Your task to perform on an android device: turn on the 12-hour format for clock Image 0: 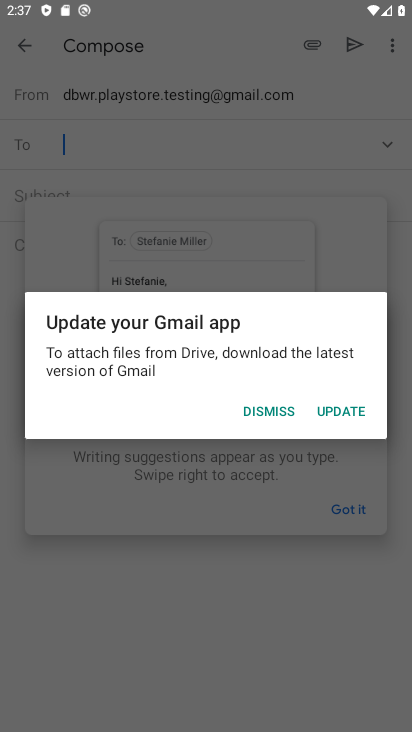
Step 0: press home button
Your task to perform on an android device: turn on the 12-hour format for clock Image 1: 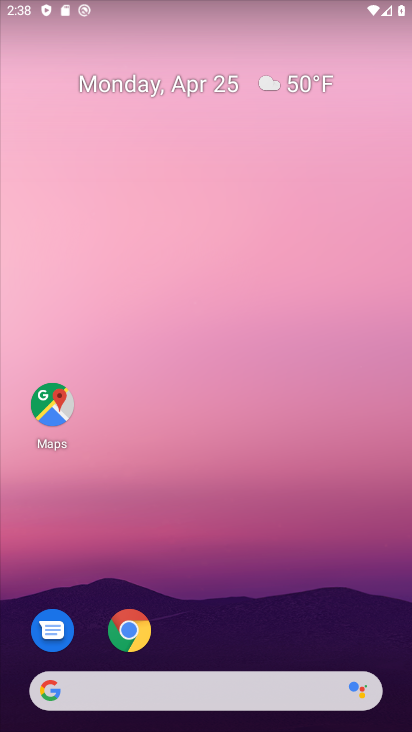
Step 1: drag from (160, 463) to (76, 143)
Your task to perform on an android device: turn on the 12-hour format for clock Image 2: 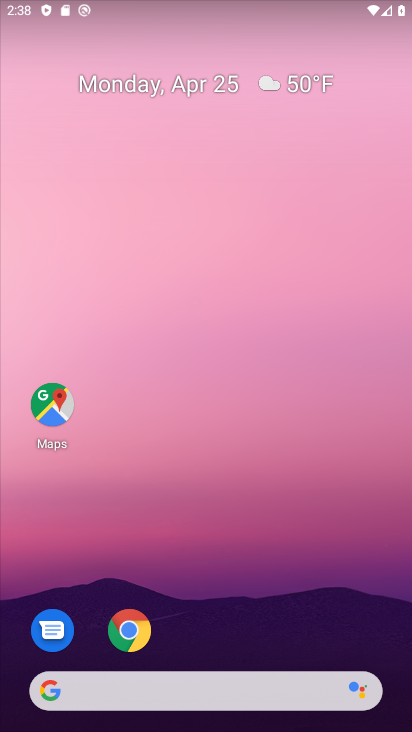
Step 2: drag from (220, 572) to (50, 48)
Your task to perform on an android device: turn on the 12-hour format for clock Image 3: 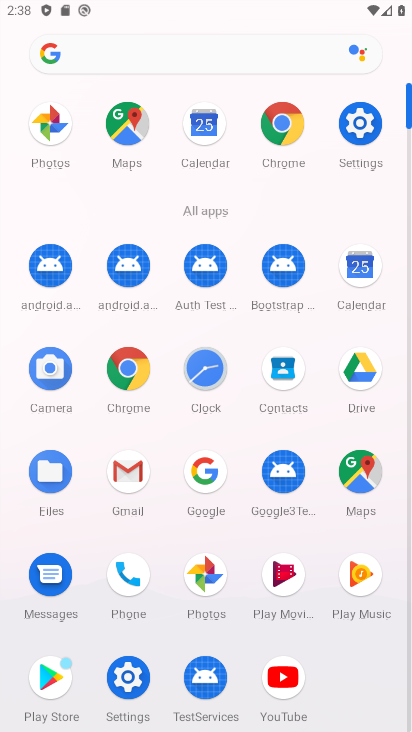
Step 3: click (218, 363)
Your task to perform on an android device: turn on the 12-hour format for clock Image 4: 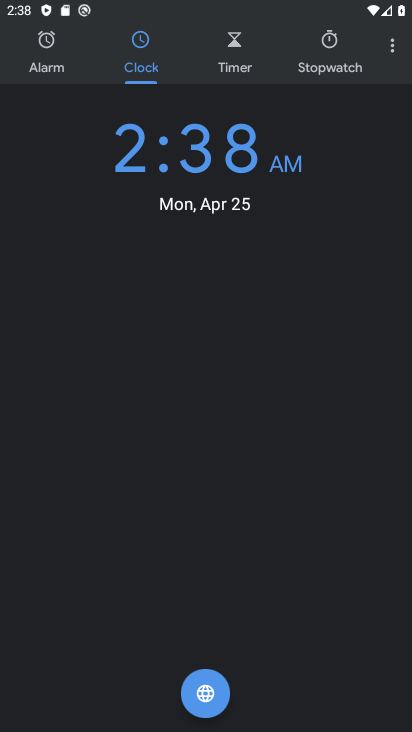
Step 4: click (393, 48)
Your task to perform on an android device: turn on the 12-hour format for clock Image 5: 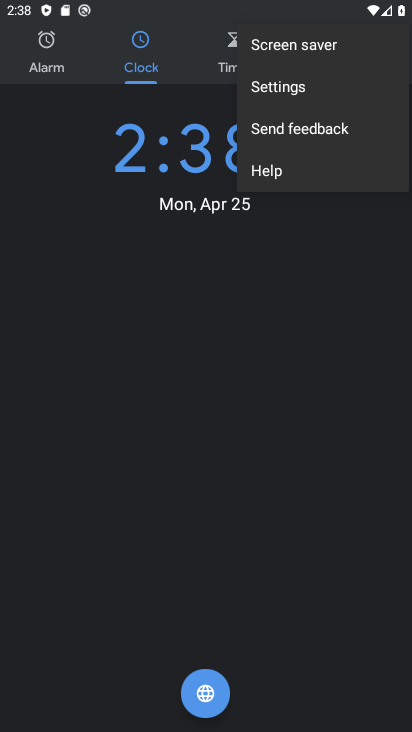
Step 5: click (279, 85)
Your task to perform on an android device: turn on the 12-hour format for clock Image 6: 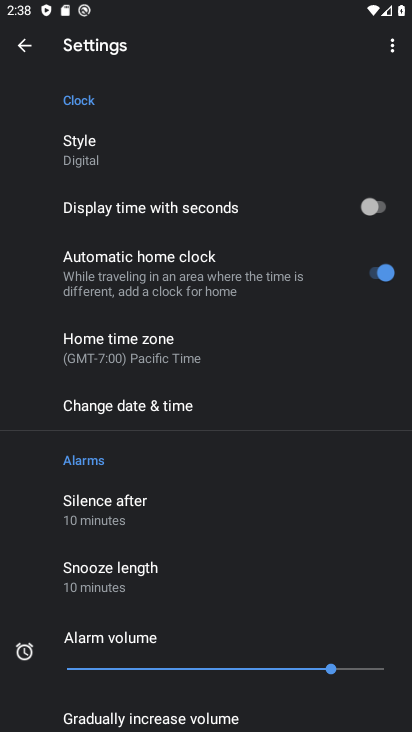
Step 6: click (133, 403)
Your task to perform on an android device: turn on the 12-hour format for clock Image 7: 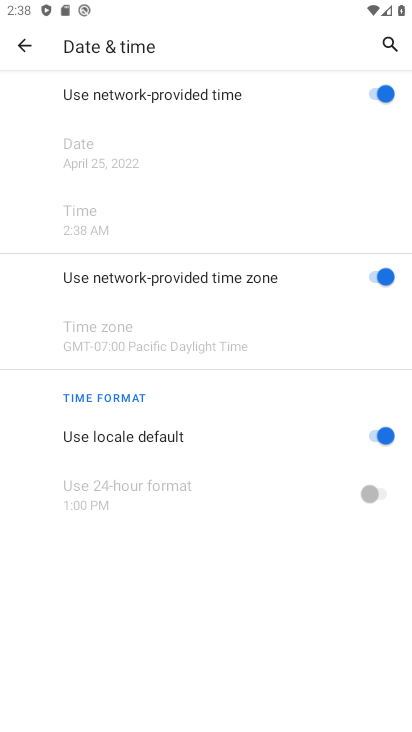
Step 7: task complete